Your task to perform on an android device: change your default location settings in chrome Image 0: 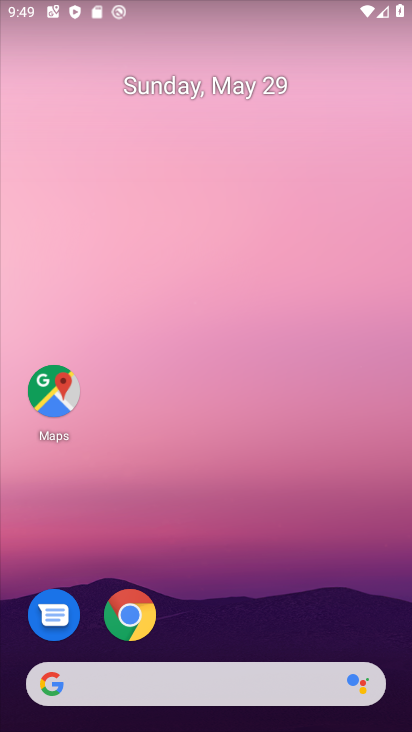
Step 0: click (132, 622)
Your task to perform on an android device: change your default location settings in chrome Image 1: 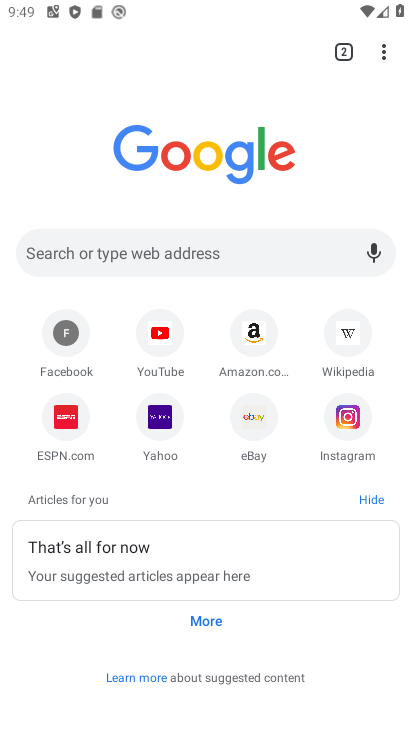
Step 1: click (385, 47)
Your task to perform on an android device: change your default location settings in chrome Image 2: 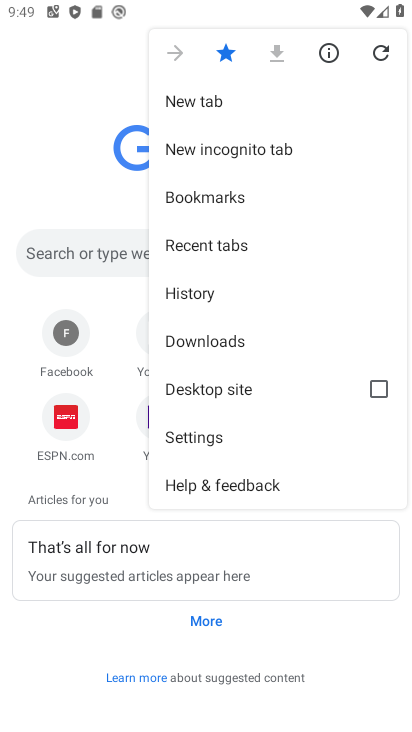
Step 2: click (197, 435)
Your task to perform on an android device: change your default location settings in chrome Image 3: 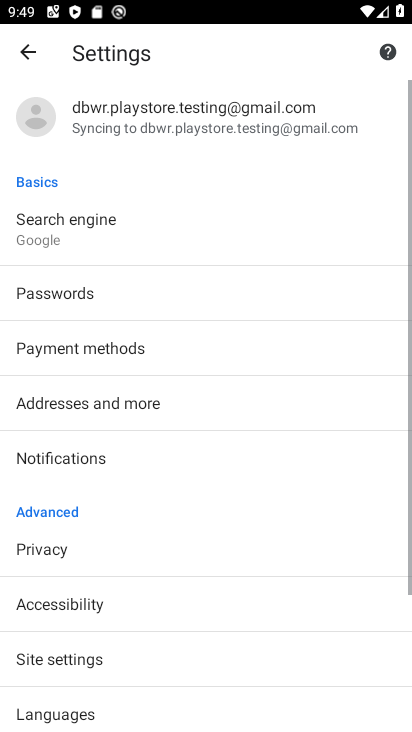
Step 3: drag from (123, 640) to (126, 252)
Your task to perform on an android device: change your default location settings in chrome Image 4: 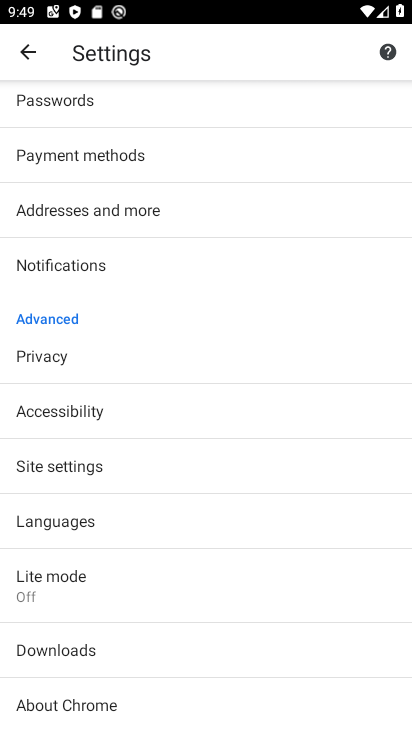
Step 4: click (92, 458)
Your task to perform on an android device: change your default location settings in chrome Image 5: 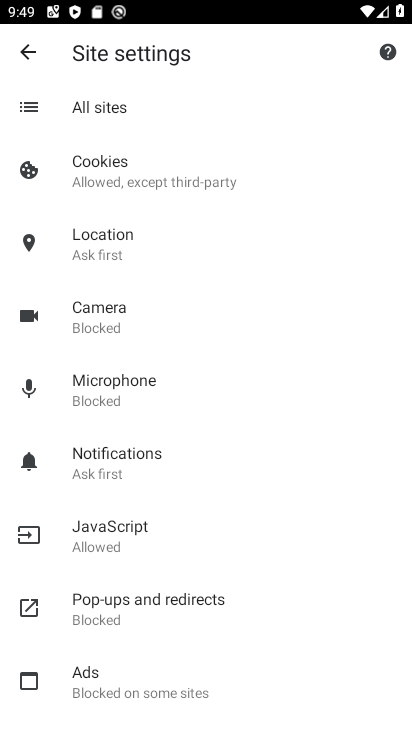
Step 5: click (116, 251)
Your task to perform on an android device: change your default location settings in chrome Image 6: 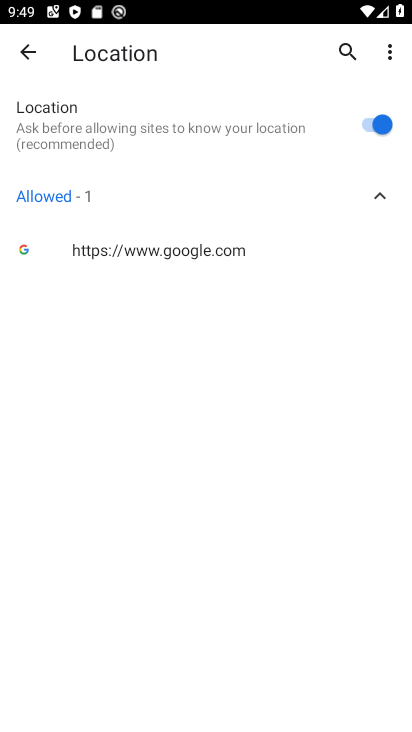
Step 6: task complete